Your task to perform on an android device: Show me the alarms in the clock app Image 0: 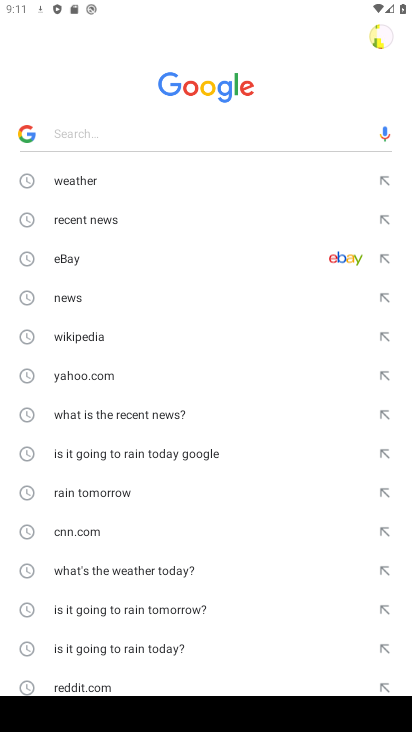
Step 0: press home button
Your task to perform on an android device: Show me the alarms in the clock app Image 1: 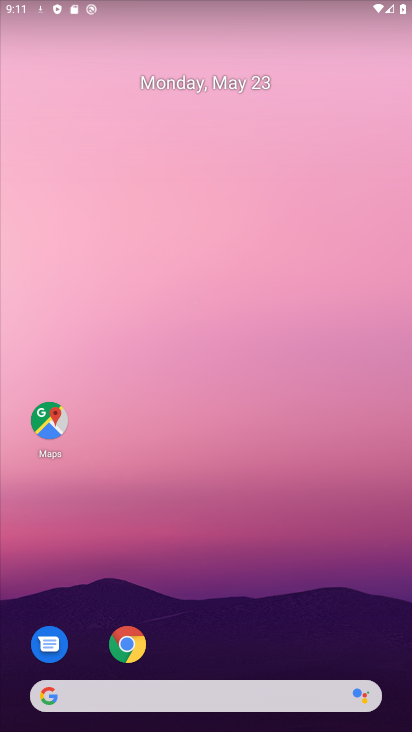
Step 1: drag from (278, 706) to (243, 291)
Your task to perform on an android device: Show me the alarms in the clock app Image 2: 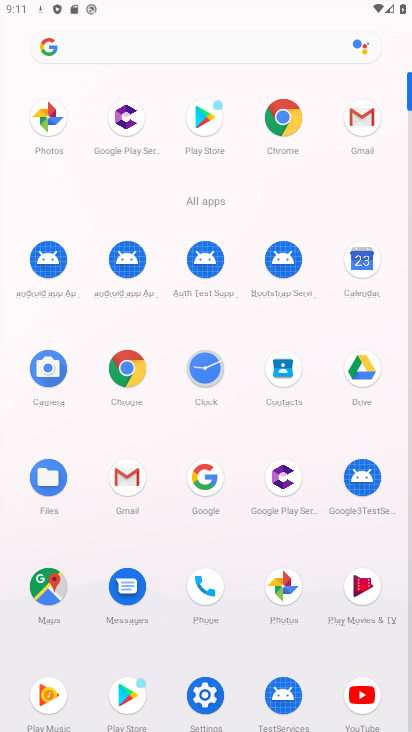
Step 2: click (204, 346)
Your task to perform on an android device: Show me the alarms in the clock app Image 3: 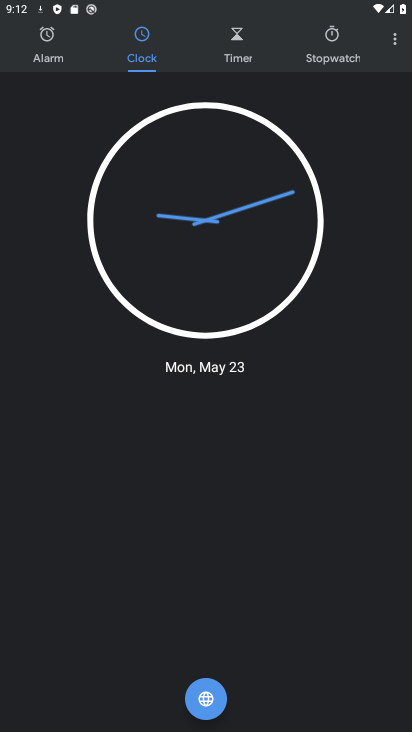
Step 3: click (33, 54)
Your task to perform on an android device: Show me the alarms in the clock app Image 4: 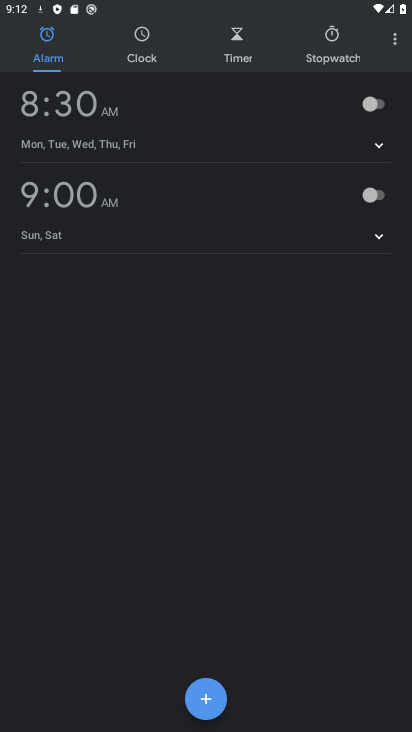
Step 4: task complete